Your task to perform on an android device: turn off javascript in the chrome app Image 0: 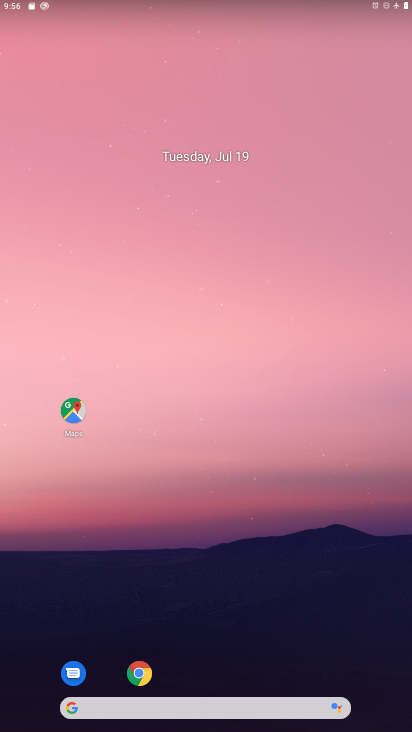
Step 0: click (139, 672)
Your task to perform on an android device: turn off javascript in the chrome app Image 1: 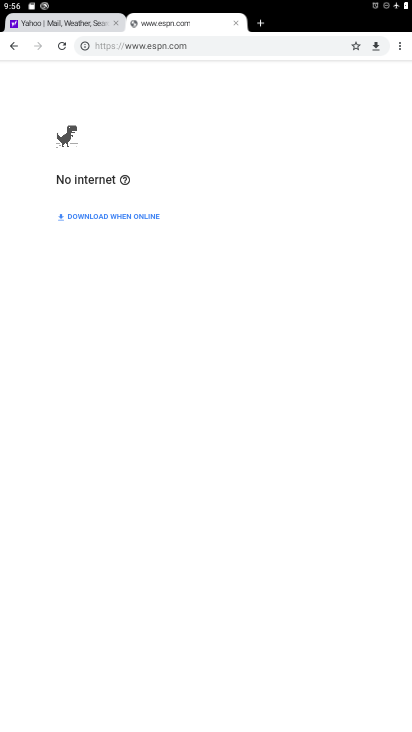
Step 1: click (399, 49)
Your task to perform on an android device: turn off javascript in the chrome app Image 2: 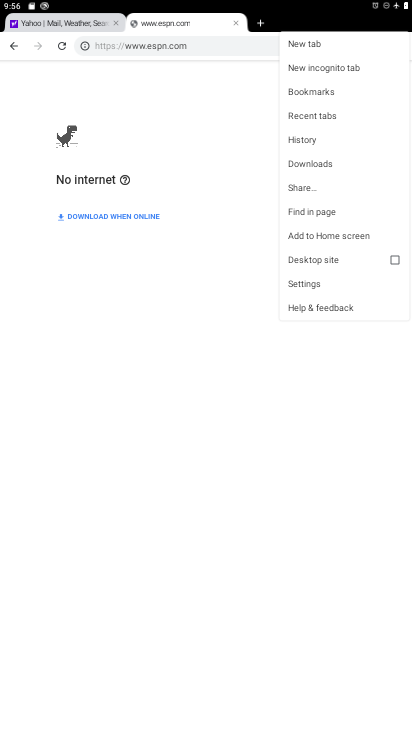
Step 2: click (305, 280)
Your task to perform on an android device: turn off javascript in the chrome app Image 3: 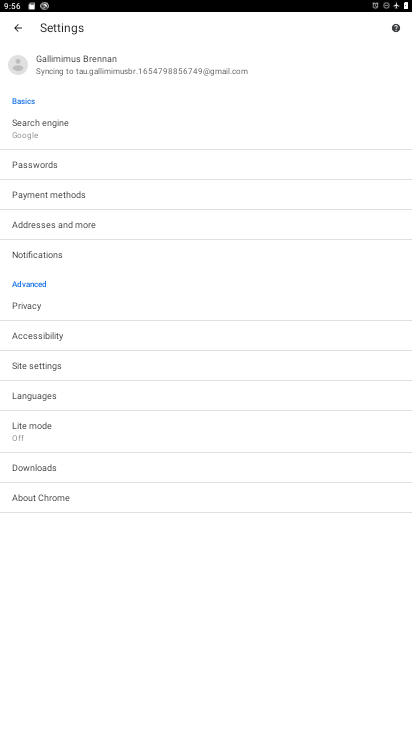
Step 3: click (30, 362)
Your task to perform on an android device: turn off javascript in the chrome app Image 4: 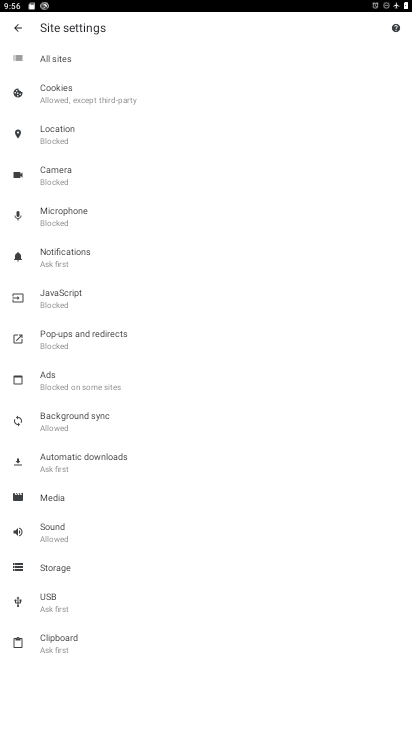
Step 4: click (55, 297)
Your task to perform on an android device: turn off javascript in the chrome app Image 5: 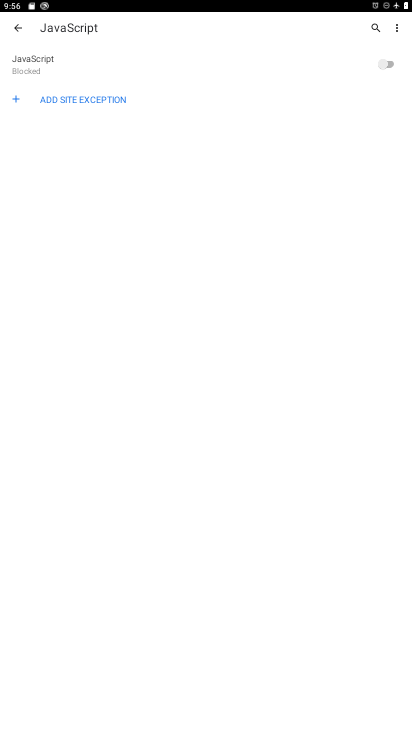
Step 5: task complete